Your task to perform on an android device: Go to Google Image 0: 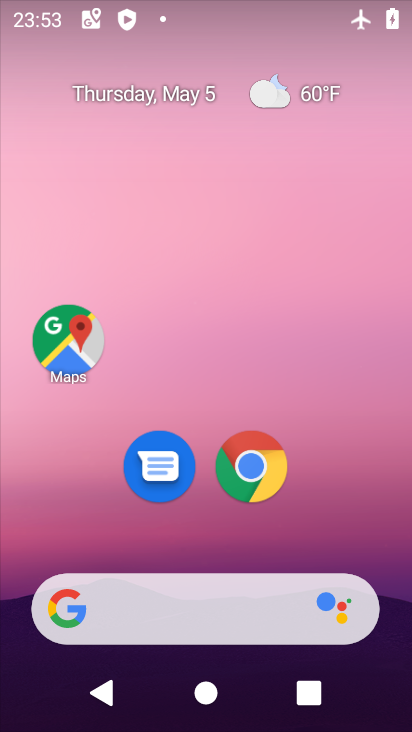
Step 0: drag from (205, 568) to (264, 199)
Your task to perform on an android device: Go to Google Image 1: 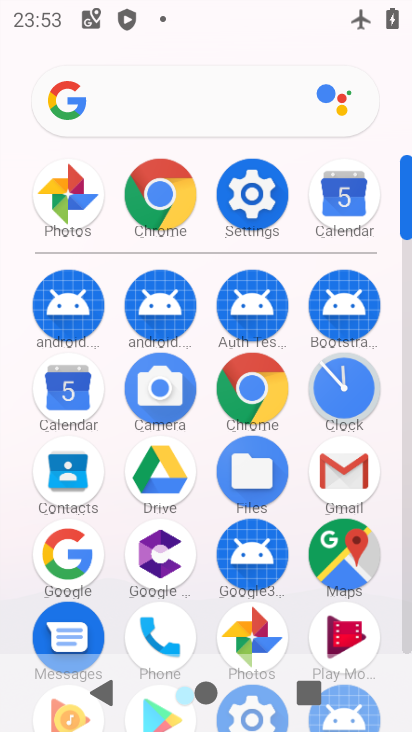
Step 1: click (75, 568)
Your task to perform on an android device: Go to Google Image 2: 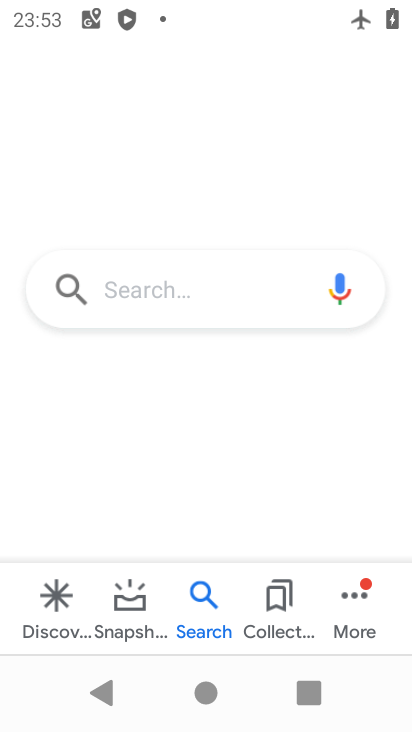
Step 2: task complete